Your task to perform on an android device: Clear the shopping cart on newegg. Add "lenovo thinkpad" to the cart on newegg, then select checkout. Image 0: 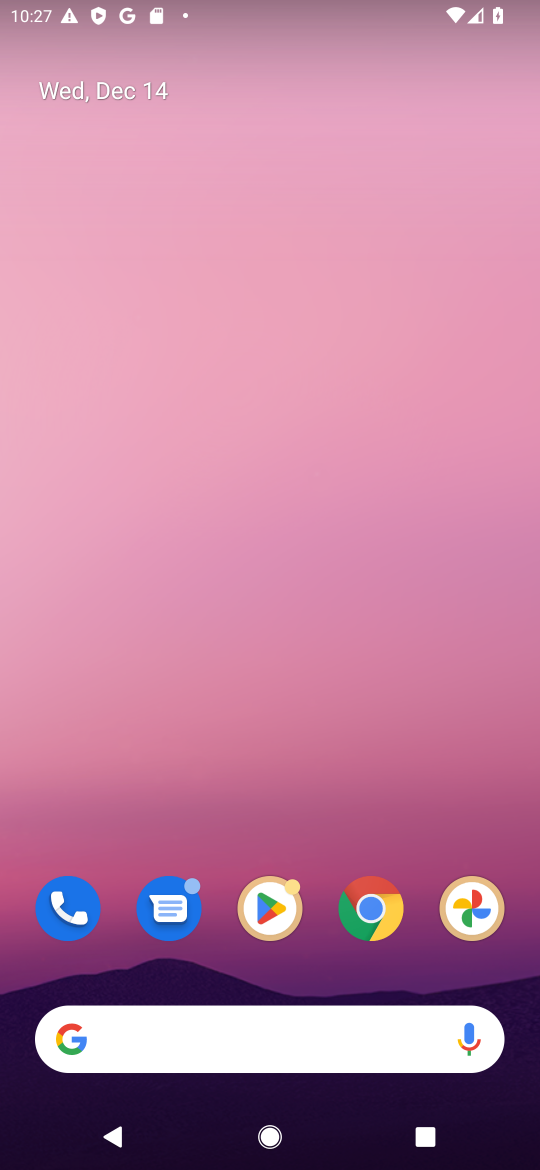
Step 0: click (384, 897)
Your task to perform on an android device: Clear the shopping cart on newegg. Add "lenovo thinkpad" to the cart on newegg, then select checkout. Image 1: 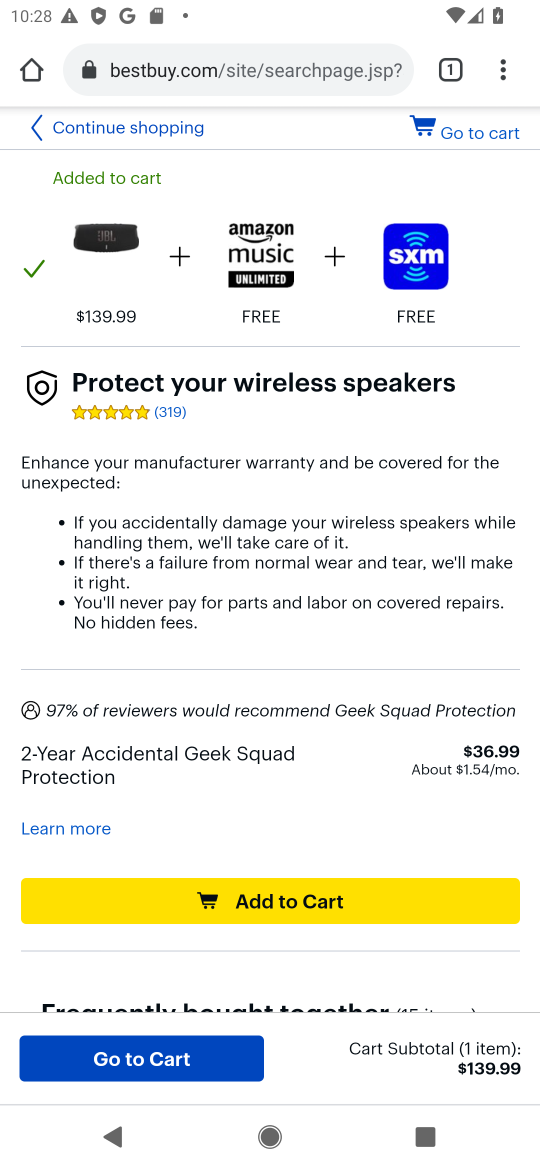
Step 1: task complete